Your task to perform on an android device: What's on my calendar tomorrow? Image 0: 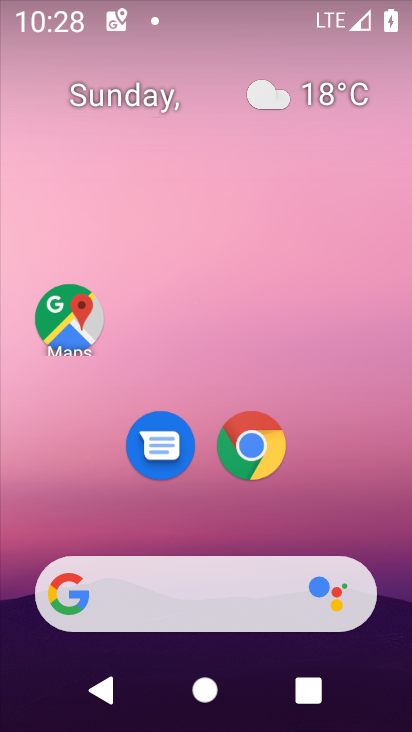
Step 0: drag from (209, 515) to (248, 47)
Your task to perform on an android device: What's on my calendar tomorrow? Image 1: 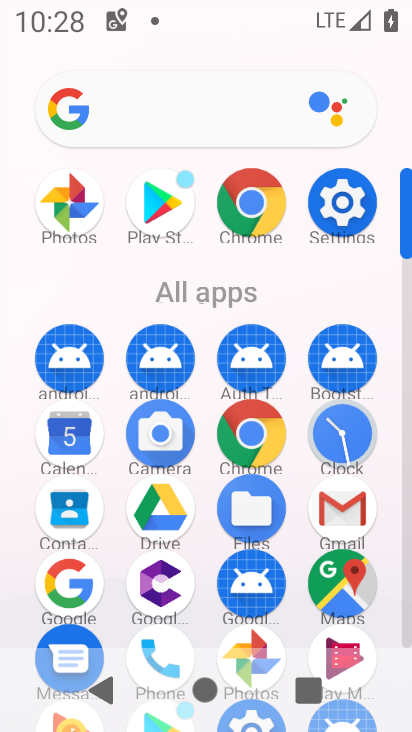
Step 1: click (64, 426)
Your task to perform on an android device: What's on my calendar tomorrow? Image 2: 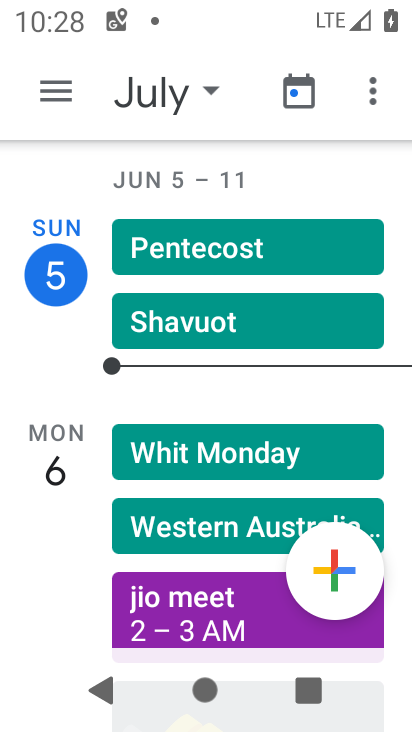
Step 2: click (65, 480)
Your task to perform on an android device: What's on my calendar tomorrow? Image 3: 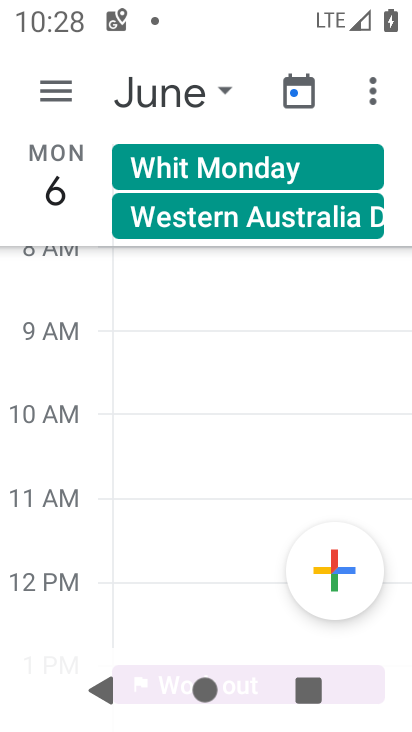
Step 3: task complete